Your task to perform on an android device: toggle airplane mode Image 0: 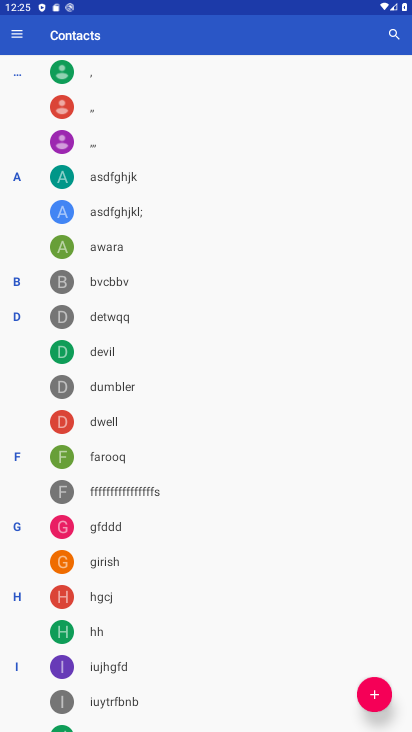
Step 0: press home button
Your task to perform on an android device: toggle airplane mode Image 1: 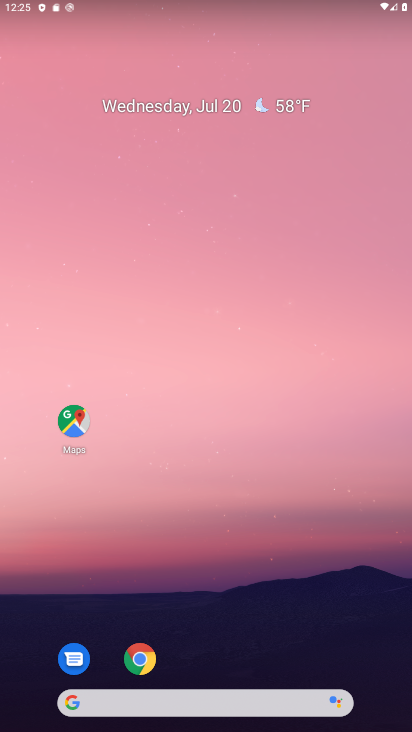
Step 1: drag from (255, 8) to (244, 550)
Your task to perform on an android device: toggle airplane mode Image 2: 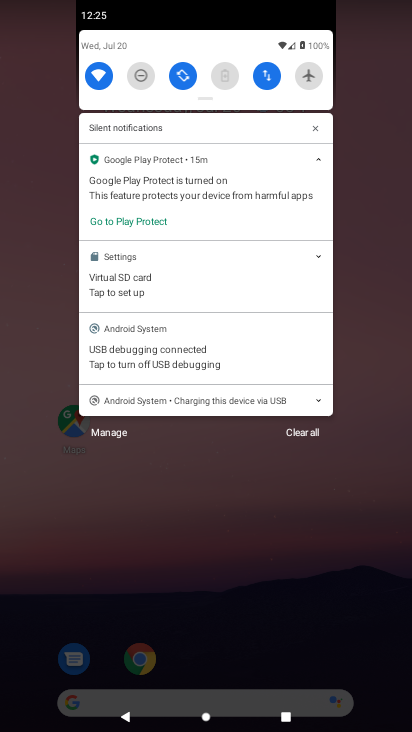
Step 2: click (304, 79)
Your task to perform on an android device: toggle airplane mode Image 3: 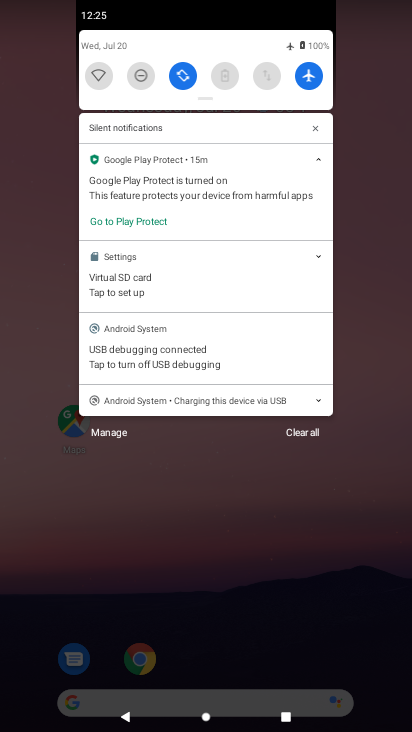
Step 3: task complete